Your task to perform on an android device: turn pop-ups on in chrome Image 0: 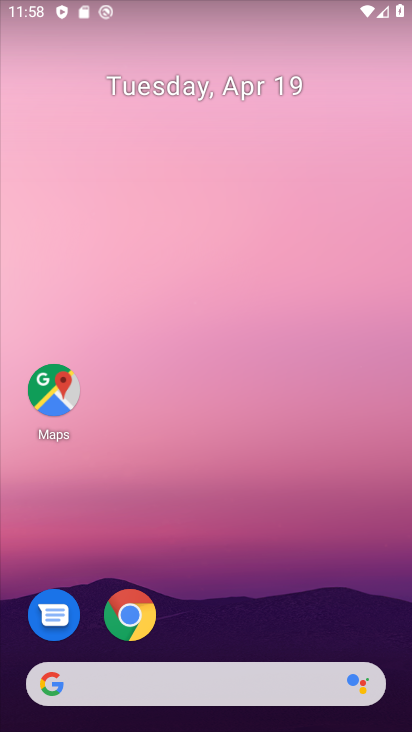
Step 0: click (127, 608)
Your task to perform on an android device: turn pop-ups on in chrome Image 1: 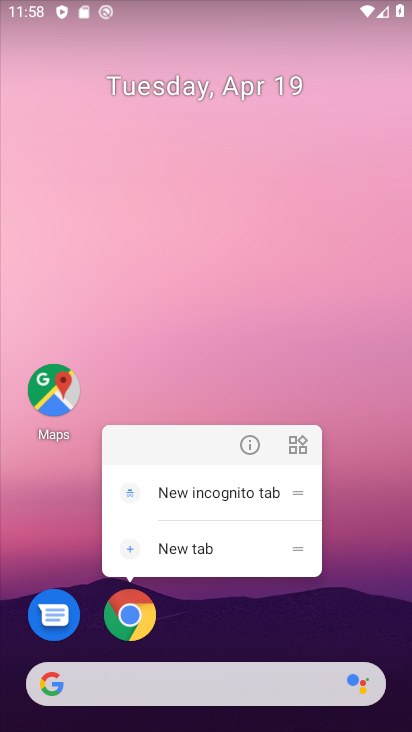
Step 1: click (127, 608)
Your task to perform on an android device: turn pop-ups on in chrome Image 2: 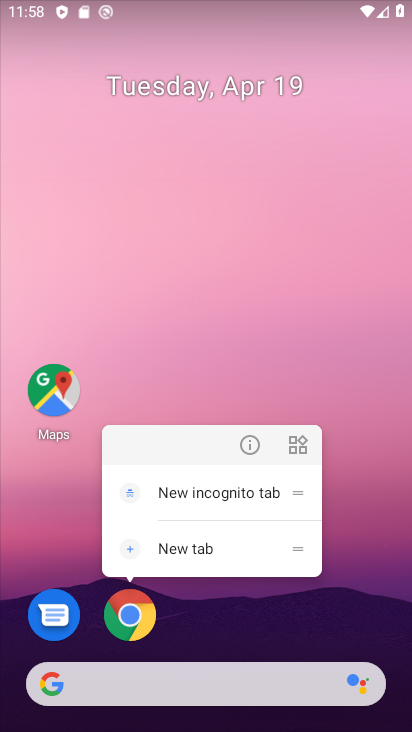
Step 2: click (127, 608)
Your task to perform on an android device: turn pop-ups on in chrome Image 3: 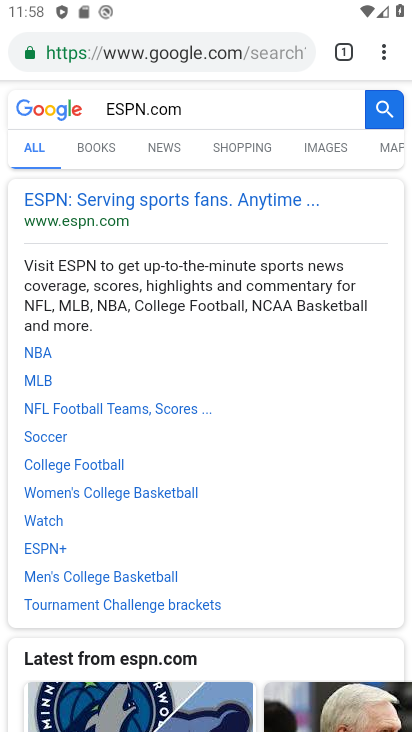
Step 3: click (385, 49)
Your task to perform on an android device: turn pop-ups on in chrome Image 4: 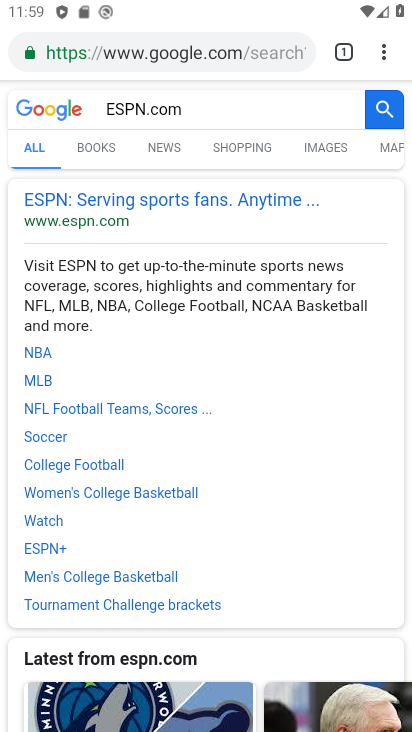
Step 4: click (383, 47)
Your task to perform on an android device: turn pop-ups on in chrome Image 5: 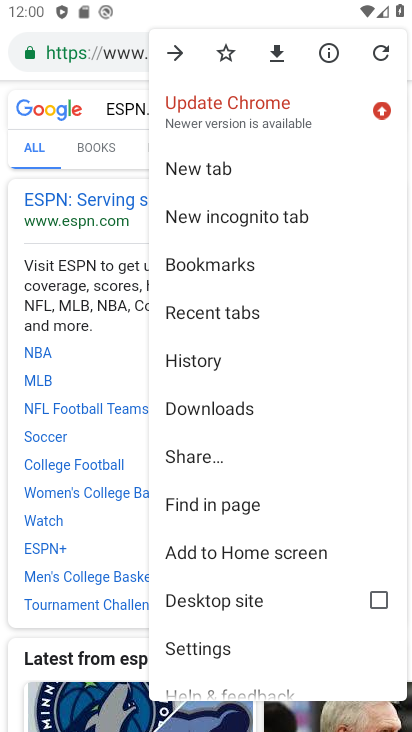
Step 5: drag from (320, 520) to (320, 329)
Your task to perform on an android device: turn pop-ups on in chrome Image 6: 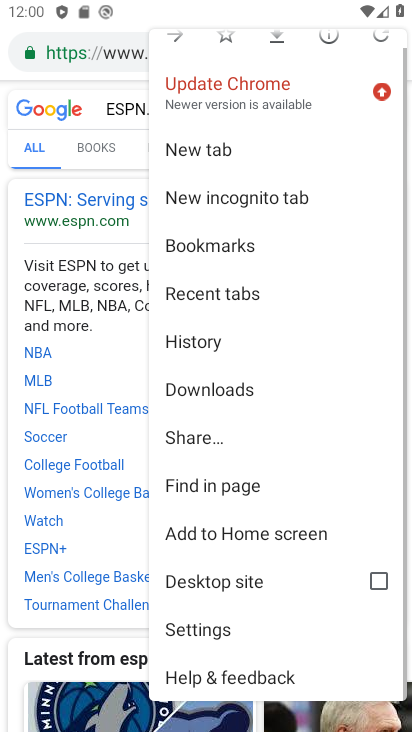
Step 6: click (208, 629)
Your task to perform on an android device: turn pop-ups on in chrome Image 7: 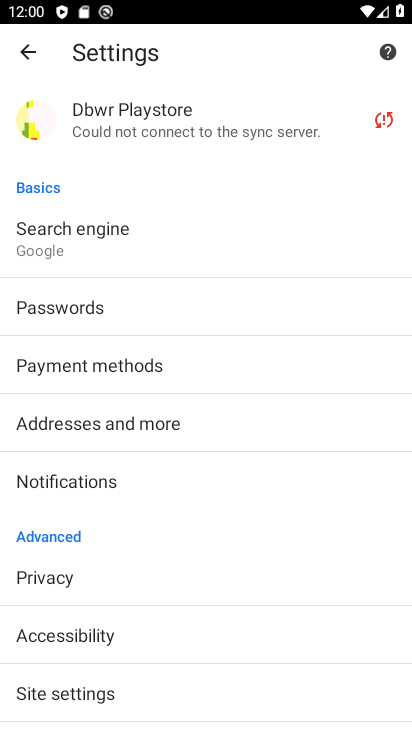
Step 7: click (71, 687)
Your task to perform on an android device: turn pop-ups on in chrome Image 8: 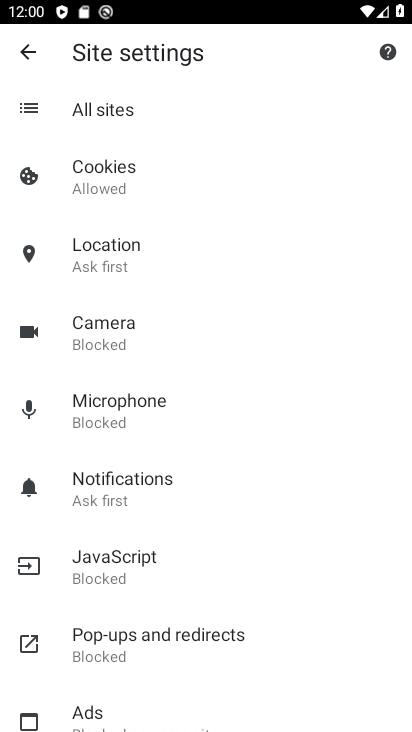
Step 8: click (137, 643)
Your task to perform on an android device: turn pop-ups on in chrome Image 9: 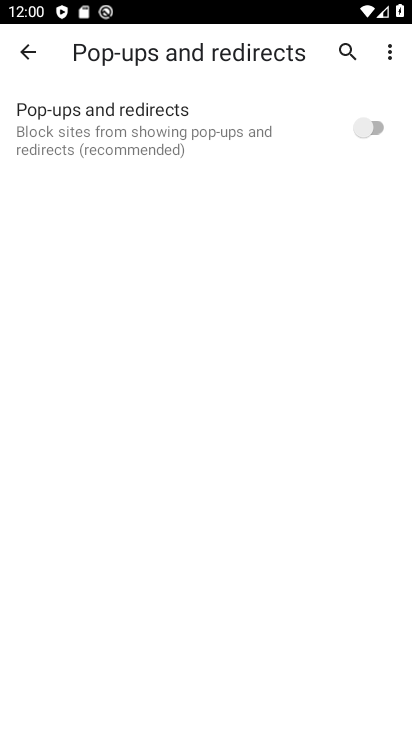
Step 9: click (375, 123)
Your task to perform on an android device: turn pop-ups on in chrome Image 10: 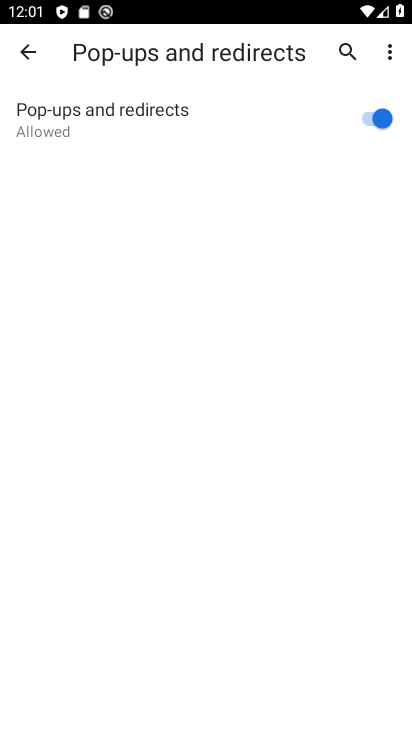
Step 10: task complete